Your task to perform on an android device: turn off improve location accuracy Image 0: 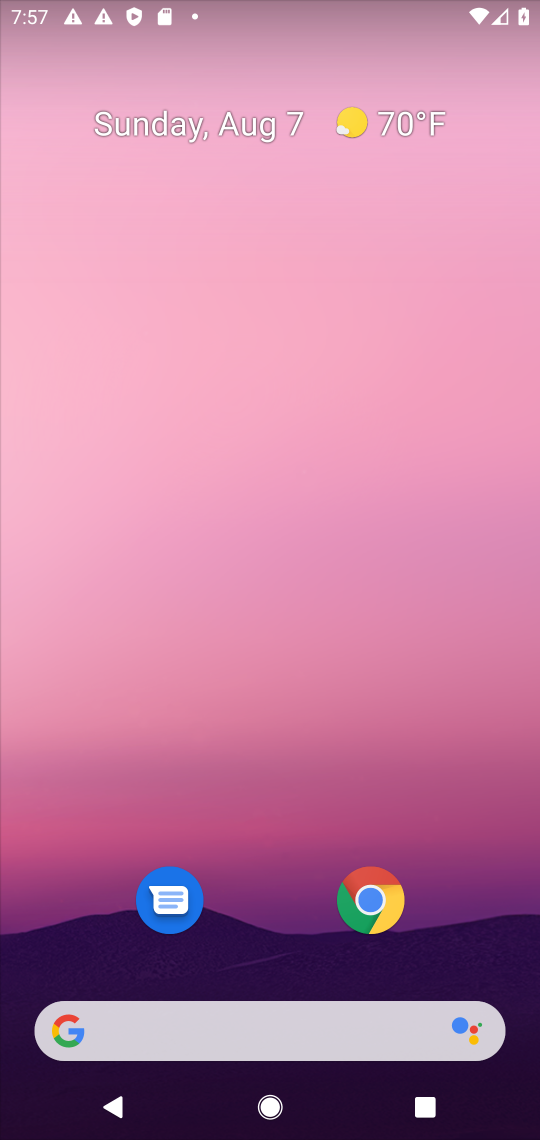
Step 0: drag from (251, 865) to (442, 129)
Your task to perform on an android device: turn off improve location accuracy Image 1: 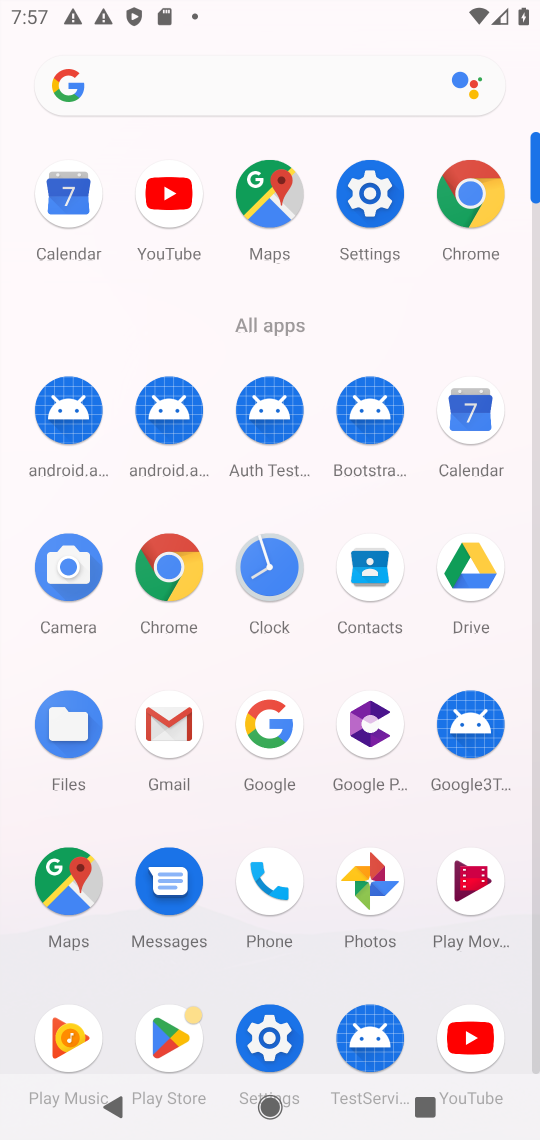
Step 1: click (265, 1030)
Your task to perform on an android device: turn off improve location accuracy Image 2: 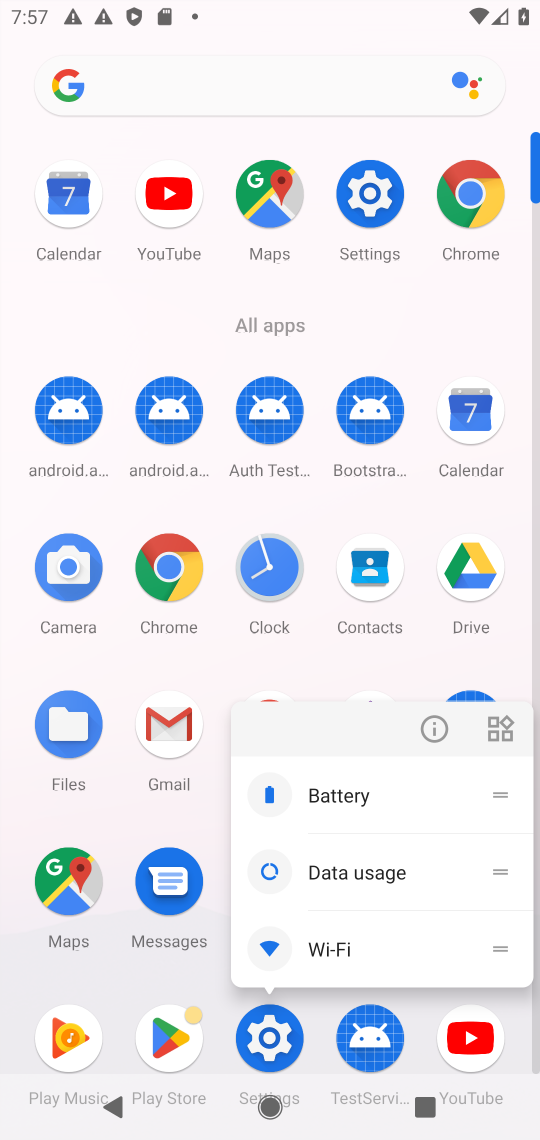
Step 2: click (265, 1044)
Your task to perform on an android device: turn off improve location accuracy Image 3: 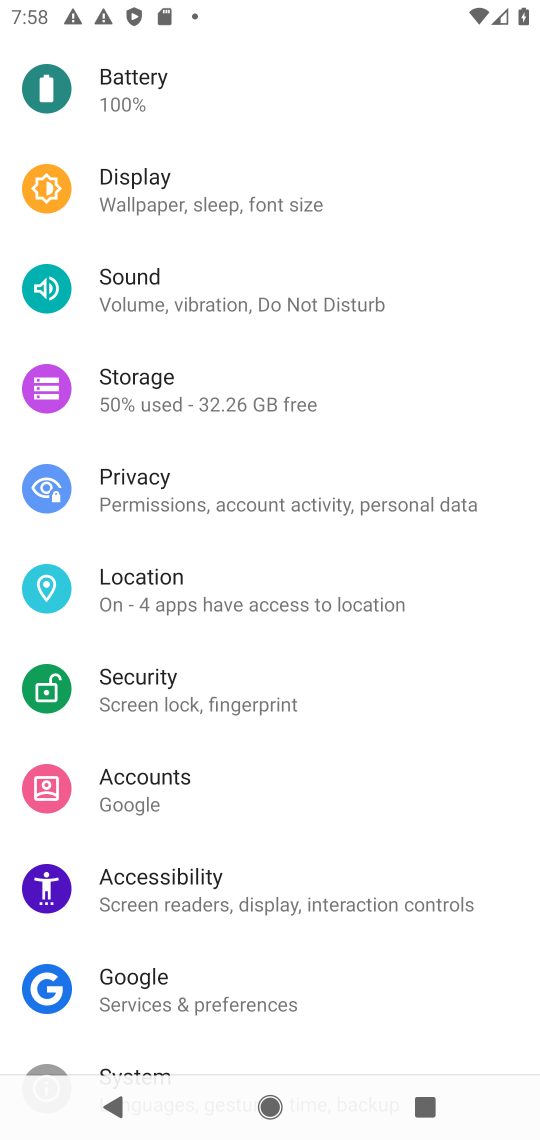
Step 3: click (200, 598)
Your task to perform on an android device: turn off improve location accuracy Image 4: 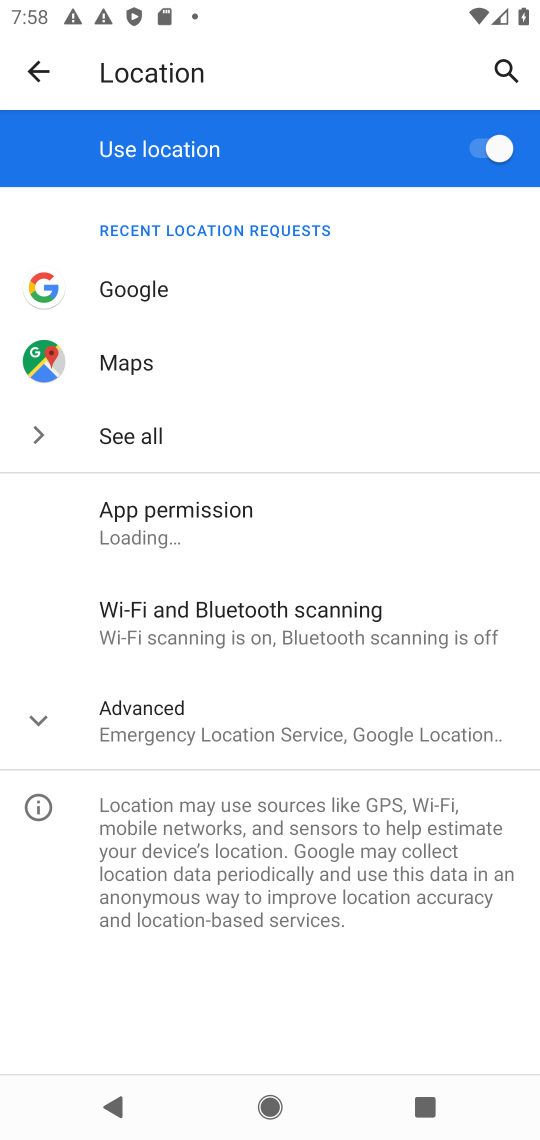
Step 4: click (168, 719)
Your task to perform on an android device: turn off improve location accuracy Image 5: 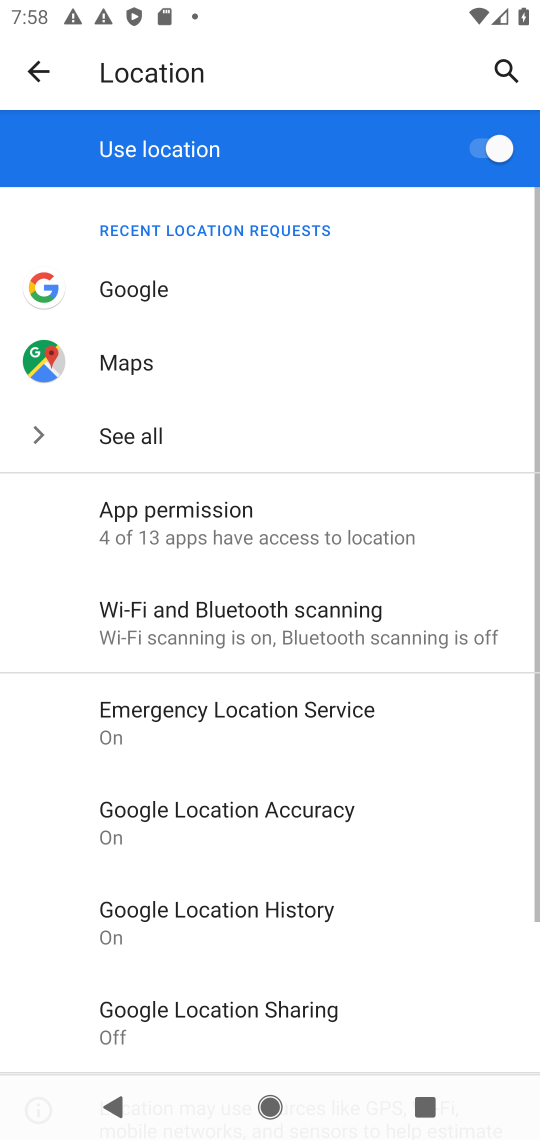
Step 5: click (243, 810)
Your task to perform on an android device: turn off improve location accuracy Image 6: 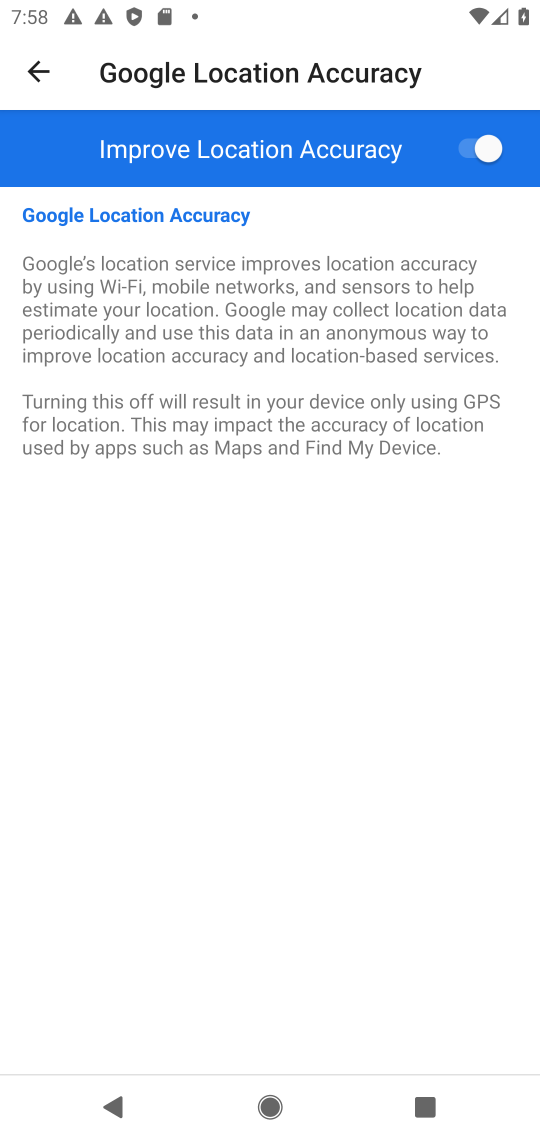
Step 6: click (464, 145)
Your task to perform on an android device: turn off improve location accuracy Image 7: 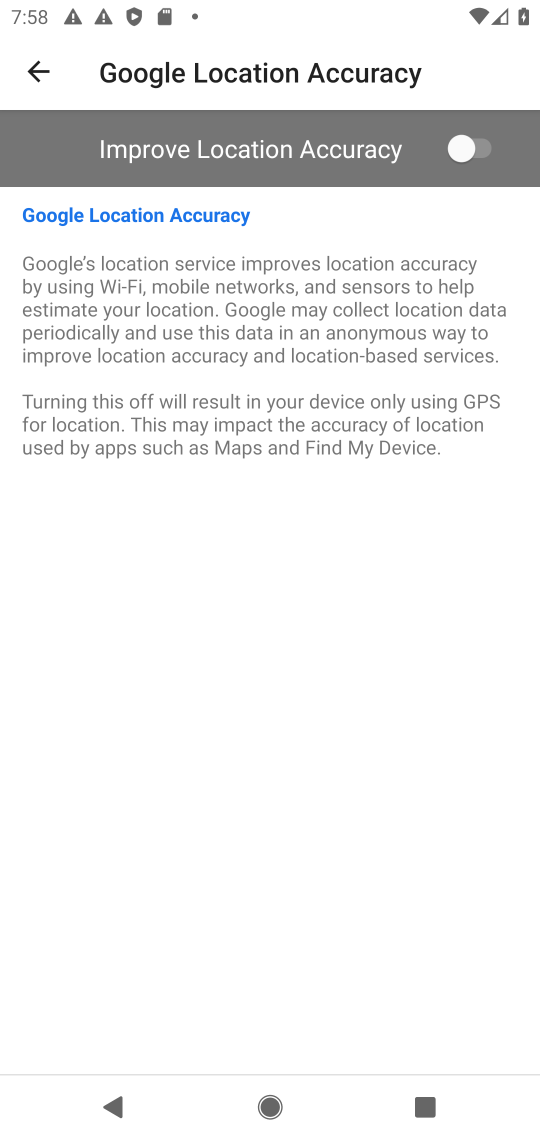
Step 7: task complete